Your task to perform on an android device: Open notification settings Image 0: 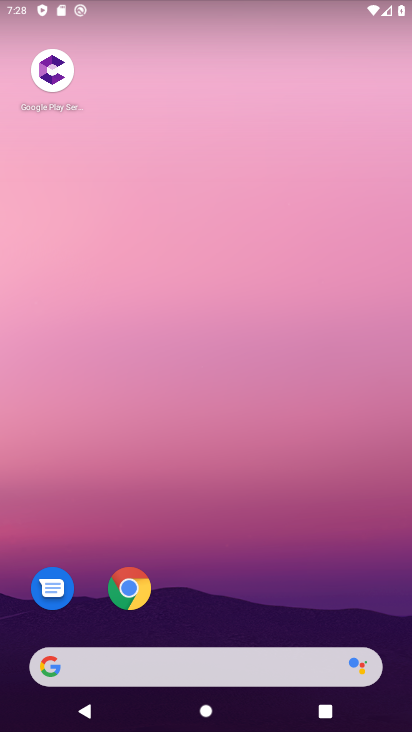
Step 0: drag from (239, 598) to (263, 68)
Your task to perform on an android device: Open notification settings Image 1: 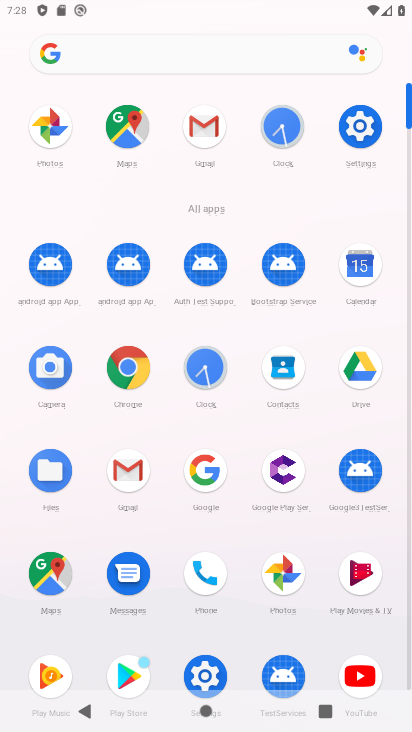
Step 1: click (202, 662)
Your task to perform on an android device: Open notification settings Image 2: 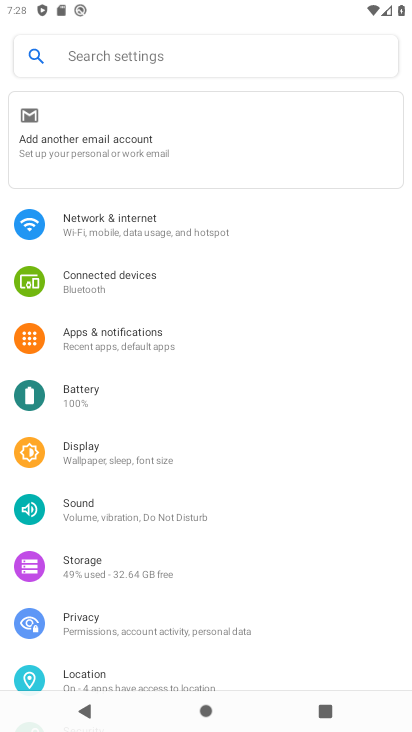
Step 2: click (147, 337)
Your task to perform on an android device: Open notification settings Image 3: 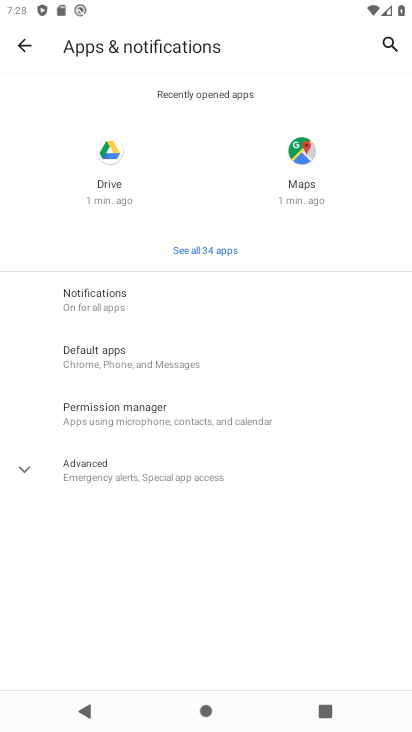
Step 3: click (150, 337)
Your task to perform on an android device: Open notification settings Image 4: 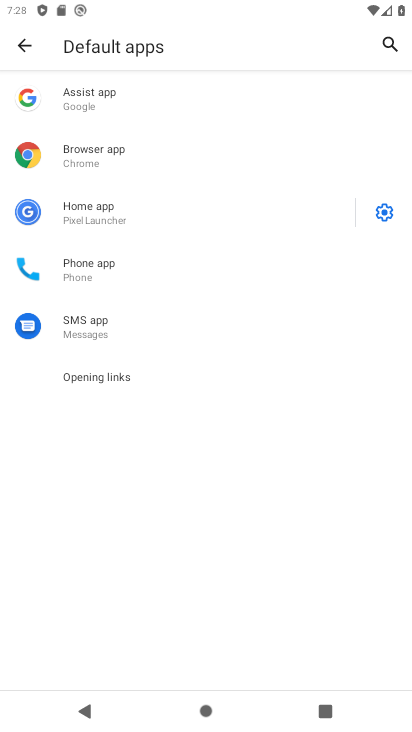
Step 4: press back button
Your task to perform on an android device: Open notification settings Image 5: 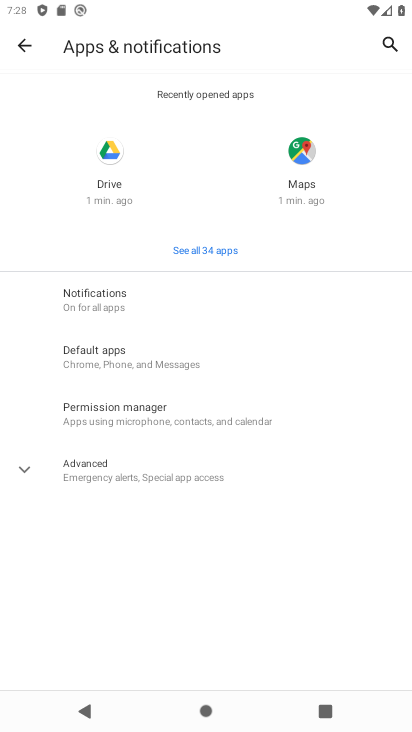
Step 5: click (179, 301)
Your task to perform on an android device: Open notification settings Image 6: 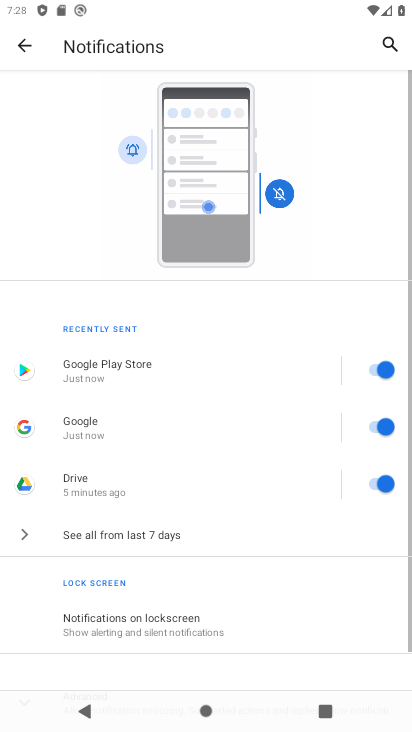
Step 6: task complete